Your task to perform on an android device: add a label to a message in the gmail app Image 0: 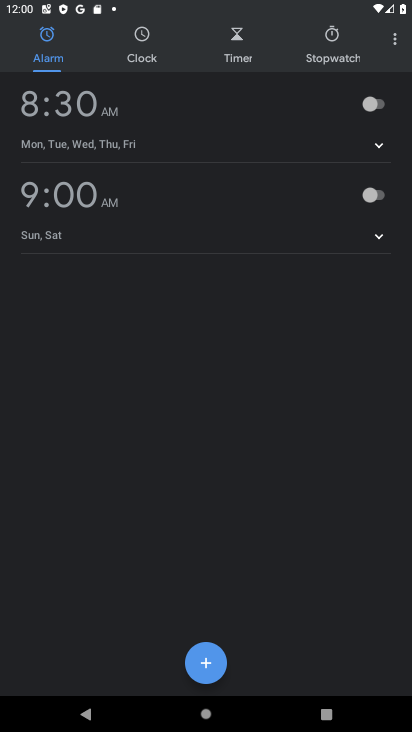
Step 0: press home button
Your task to perform on an android device: add a label to a message in the gmail app Image 1: 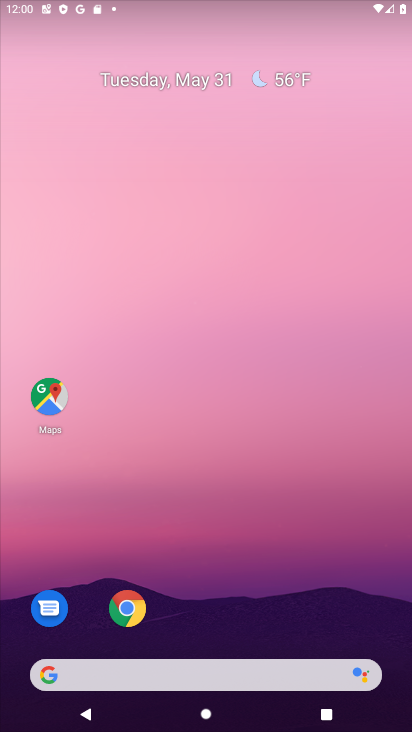
Step 1: drag from (216, 621) to (235, 33)
Your task to perform on an android device: add a label to a message in the gmail app Image 2: 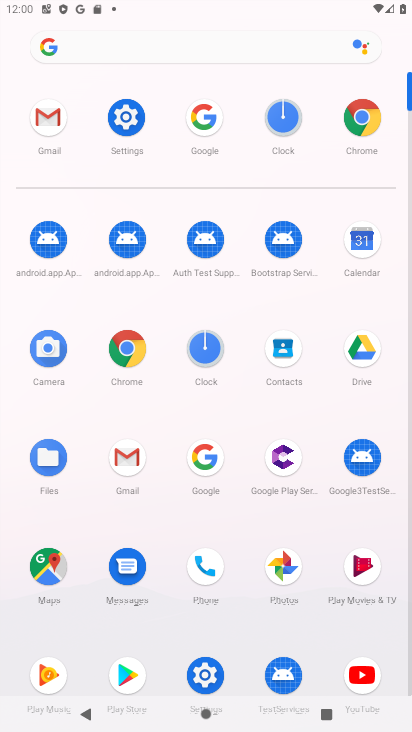
Step 2: click (132, 457)
Your task to perform on an android device: add a label to a message in the gmail app Image 3: 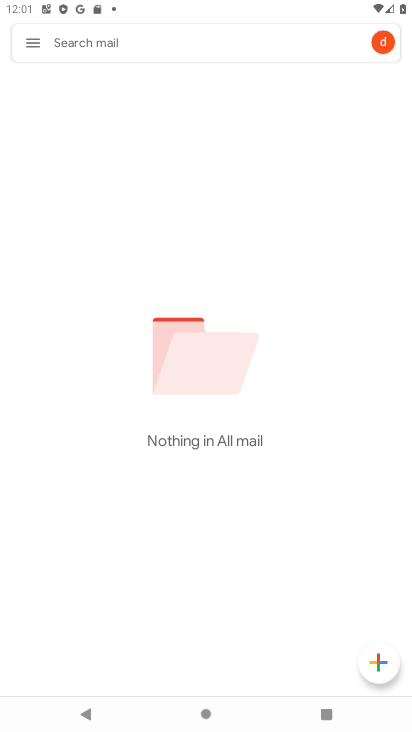
Step 3: click (38, 43)
Your task to perform on an android device: add a label to a message in the gmail app Image 4: 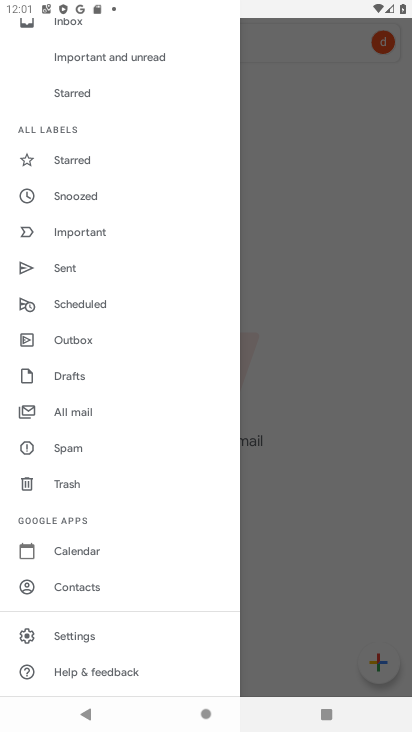
Step 4: click (90, 407)
Your task to perform on an android device: add a label to a message in the gmail app Image 5: 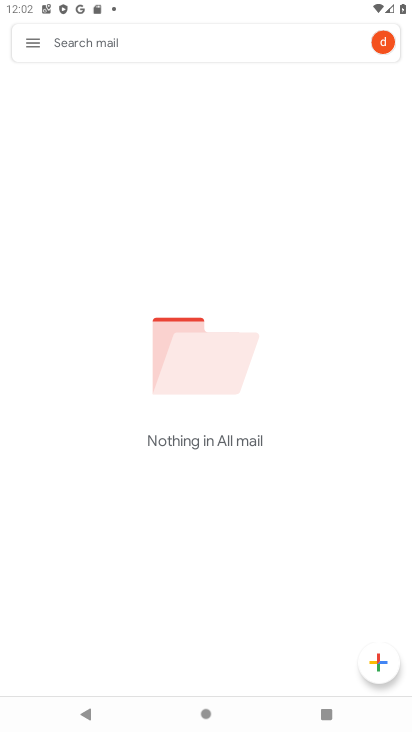
Step 5: task complete